Your task to perform on an android device: Search for macbook air on newegg, select the first entry, and add it to the cart. Image 0: 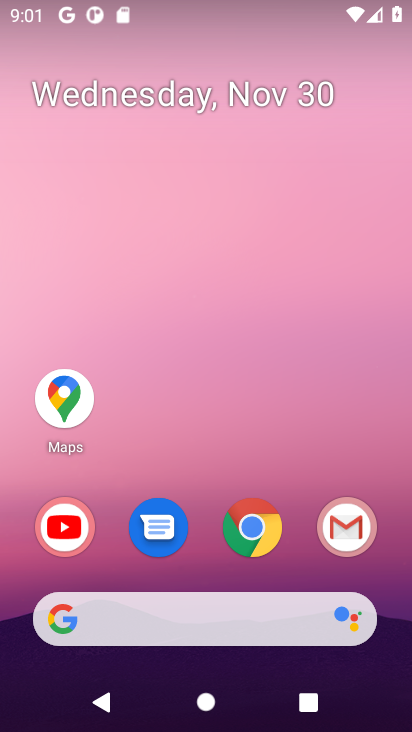
Step 0: click (256, 524)
Your task to perform on an android device: Search for macbook air on newegg, select the first entry, and add it to the cart. Image 1: 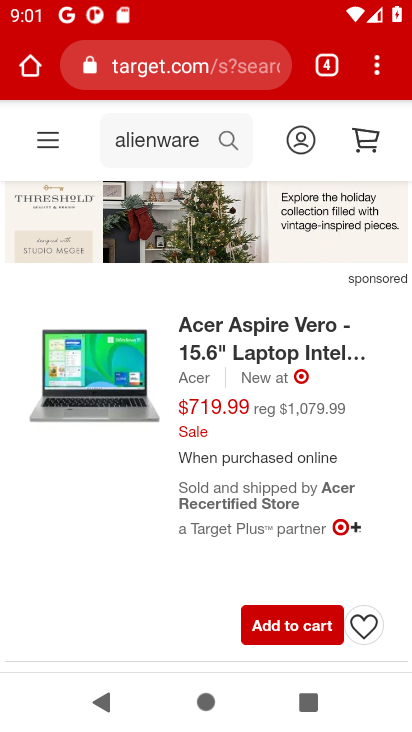
Step 1: click (227, 71)
Your task to perform on an android device: Search for macbook air on newegg, select the first entry, and add it to the cart. Image 2: 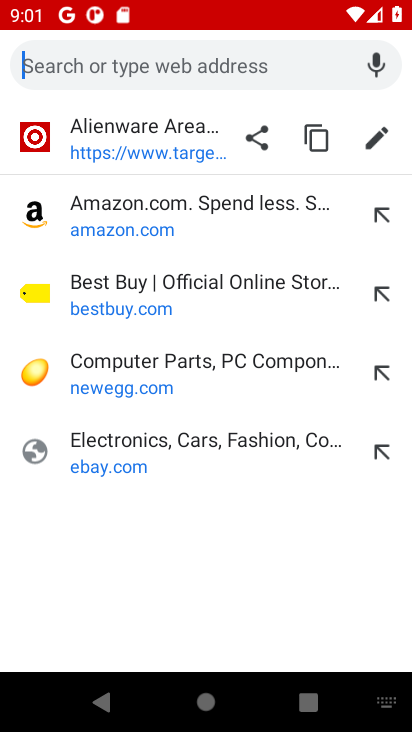
Step 2: click (208, 353)
Your task to perform on an android device: Search for macbook air on newegg, select the first entry, and add it to the cart. Image 3: 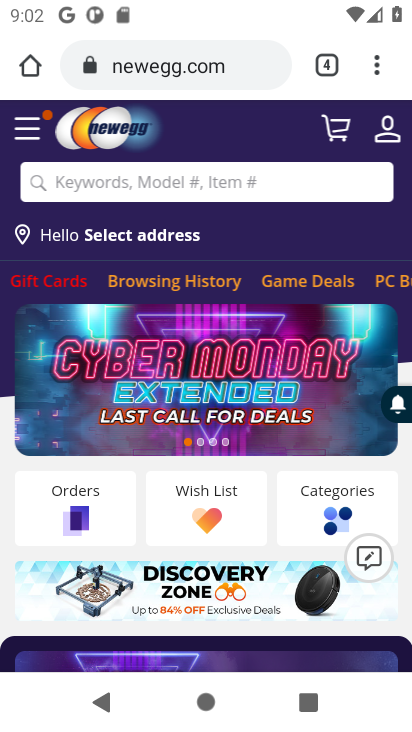
Step 3: click (303, 190)
Your task to perform on an android device: Search for macbook air on newegg, select the first entry, and add it to the cart. Image 4: 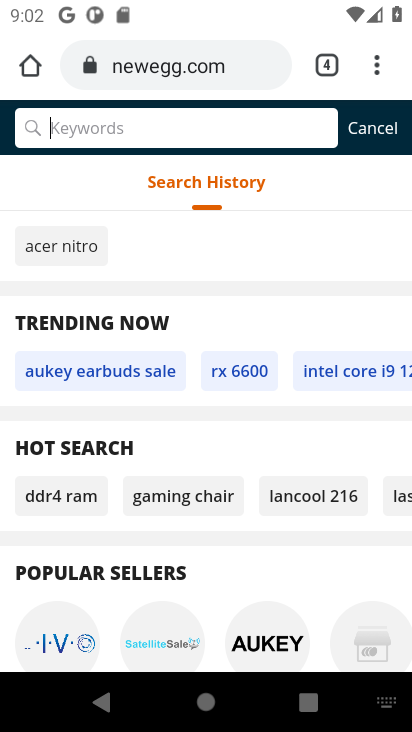
Step 4: type "macbook air"
Your task to perform on an android device: Search for macbook air on newegg, select the first entry, and add it to the cart. Image 5: 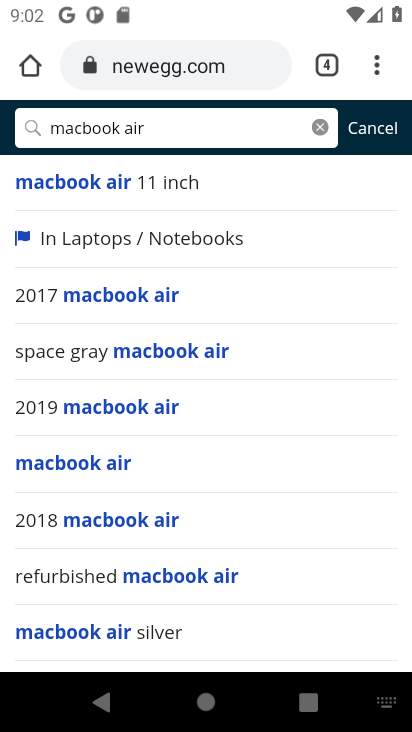
Step 5: click (112, 459)
Your task to perform on an android device: Search for macbook air on newegg, select the first entry, and add it to the cart. Image 6: 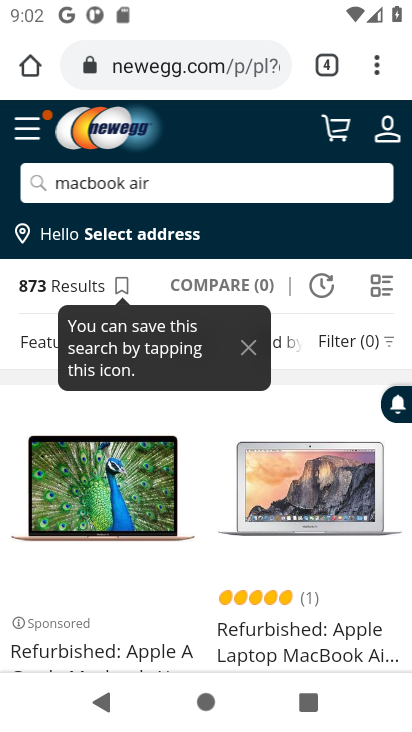
Step 6: drag from (320, 568) to (387, 292)
Your task to perform on an android device: Search for macbook air on newegg, select the first entry, and add it to the cart. Image 7: 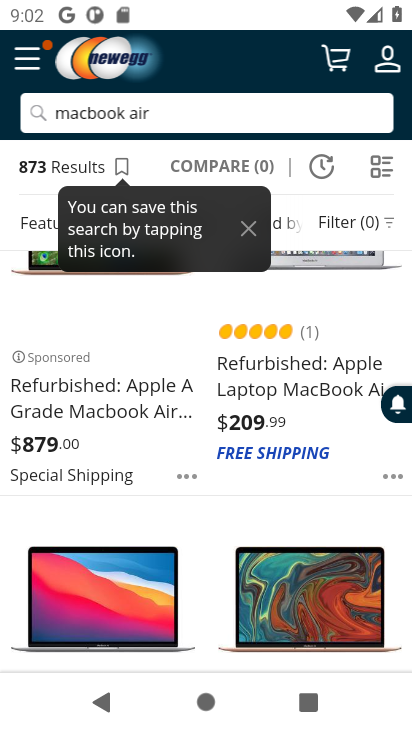
Step 7: click (315, 366)
Your task to perform on an android device: Search for macbook air on newegg, select the first entry, and add it to the cart. Image 8: 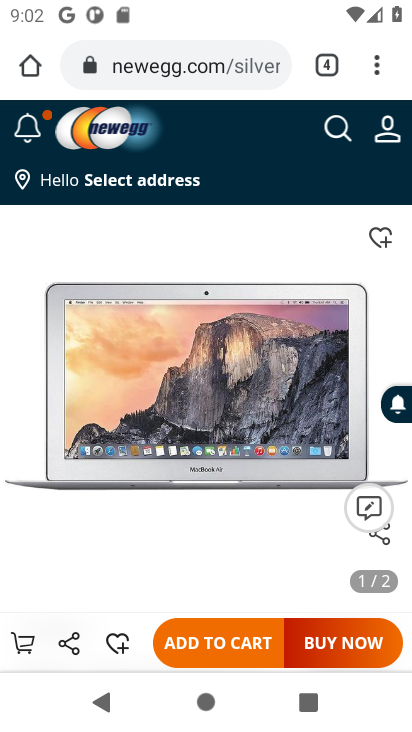
Step 8: click (200, 638)
Your task to perform on an android device: Search for macbook air on newegg, select the first entry, and add it to the cart. Image 9: 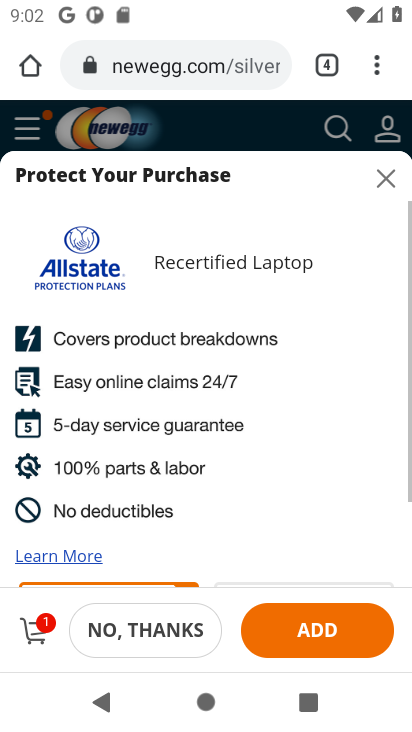
Step 9: task complete